Your task to perform on an android device: Open sound settings Image 0: 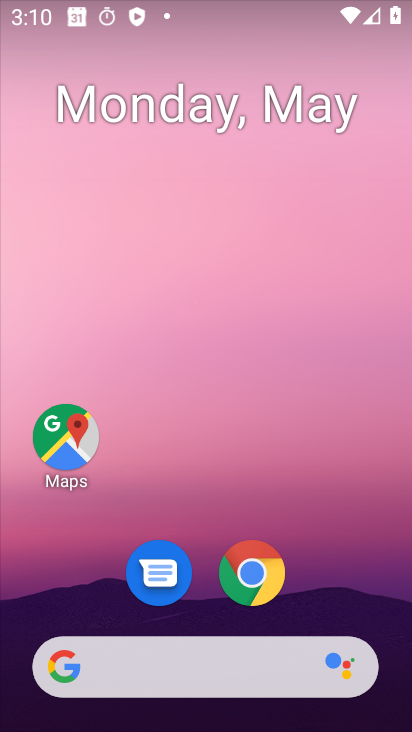
Step 0: drag from (246, 598) to (118, 22)
Your task to perform on an android device: Open sound settings Image 1: 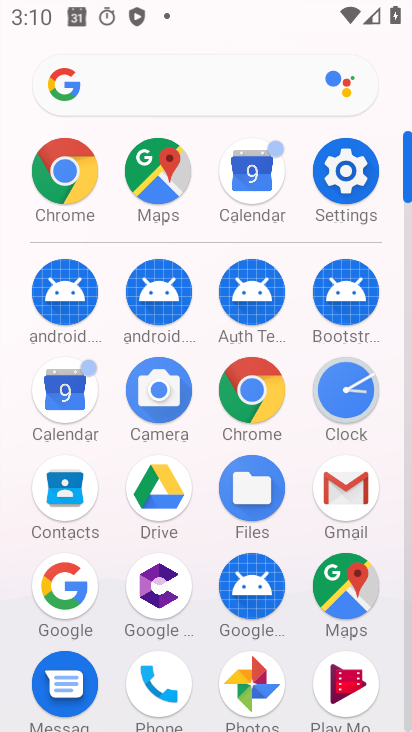
Step 1: click (356, 167)
Your task to perform on an android device: Open sound settings Image 2: 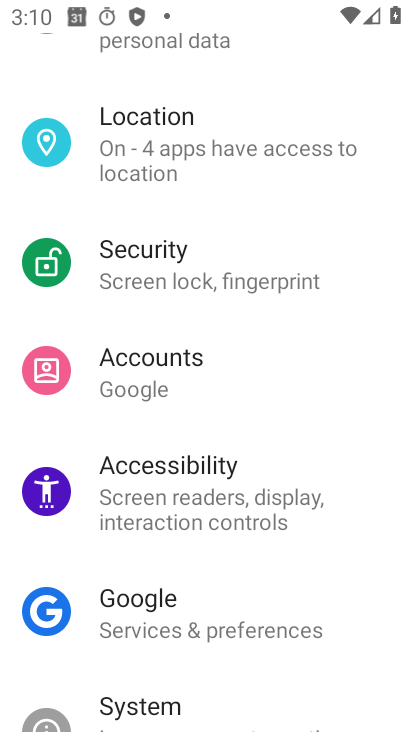
Step 2: drag from (152, 576) to (77, 20)
Your task to perform on an android device: Open sound settings Image 3: 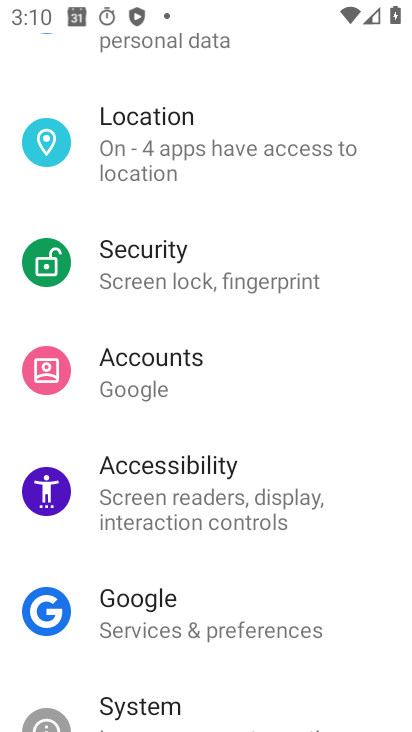
Step 3: drag from (158, 208) to (189, 731)
Your task to perform on an android device: Open sound settings Image 4: 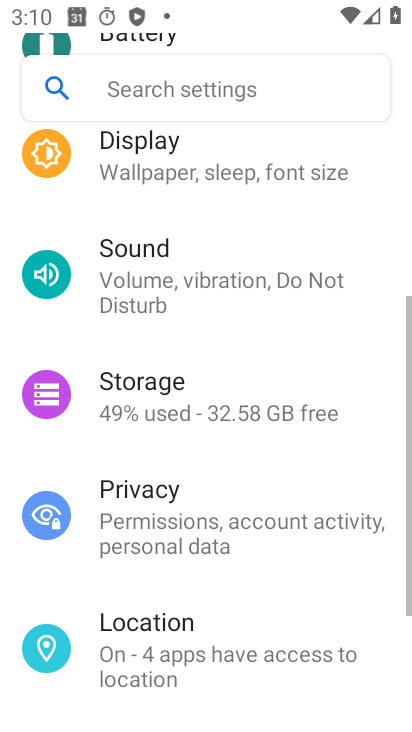
Step 4: drag from (216, 297) to (237, 524)
Your task to perform on an android device: Open sound settings Image 5: 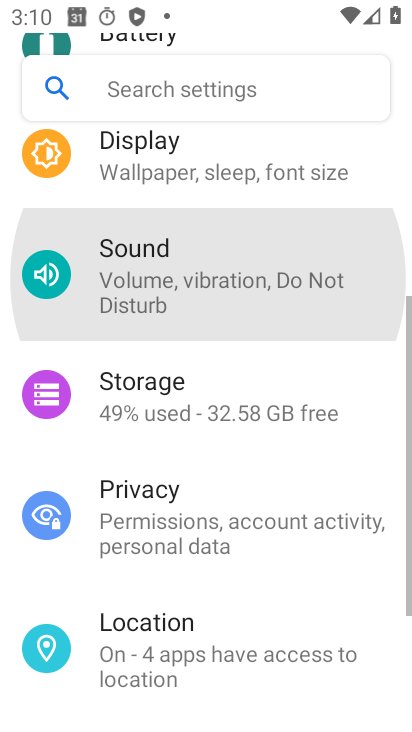
Step 5: drag from (258, 280) to (323, 559)
Your task to perform on an android device: Open sound settings Image 6: 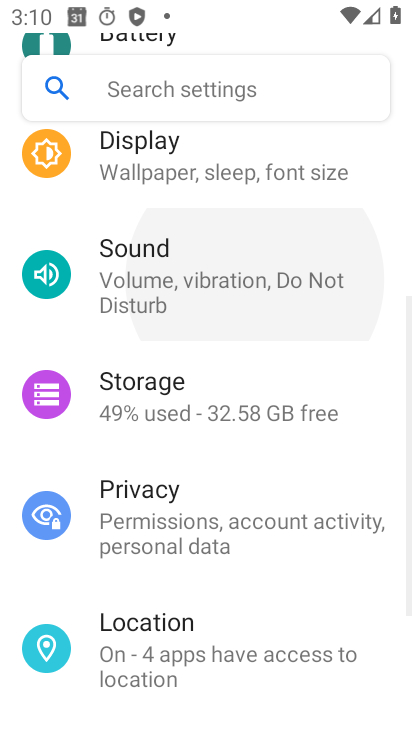
Step 6: drag from (254, 216) to (227, 473)
Your task to perform on an android device: Open sound settings Image 7: 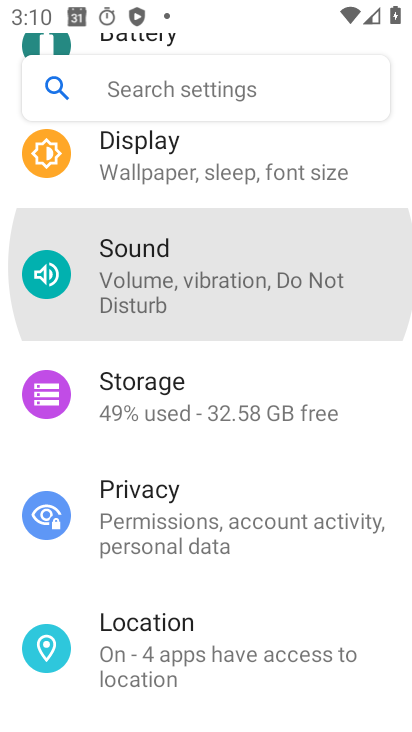
Step 7: drag from (141, 248) to (180, 518)
Your task to perform on an android device: Open sound settings Image 8: 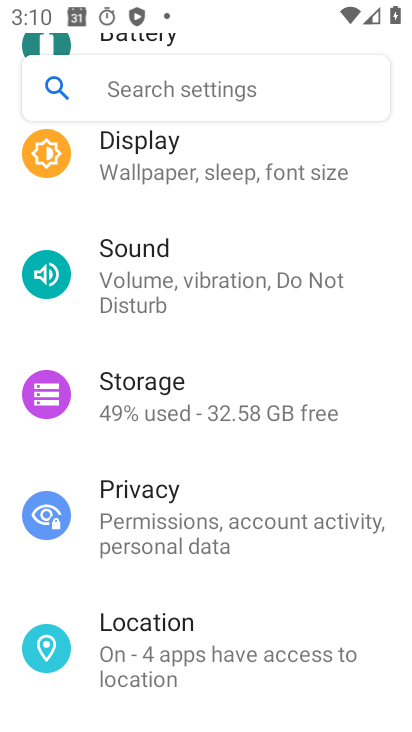
Step 8: click (154, 286)
Your task to perform on an android device: Open sound settings Image 9: 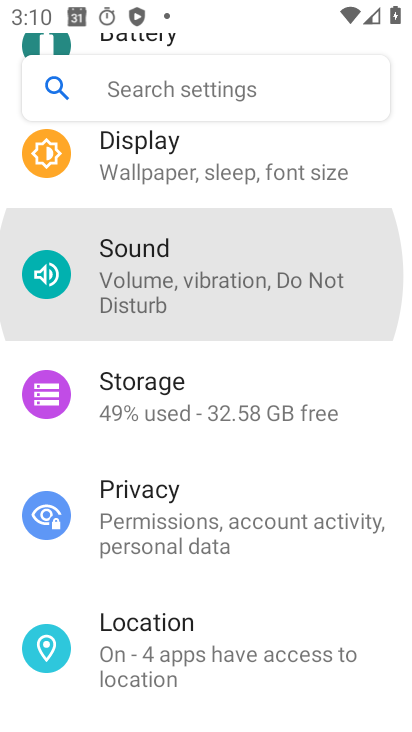
Step 9: click (154, 286)
Your task to perform on an android device: Open sound settings Image 10: 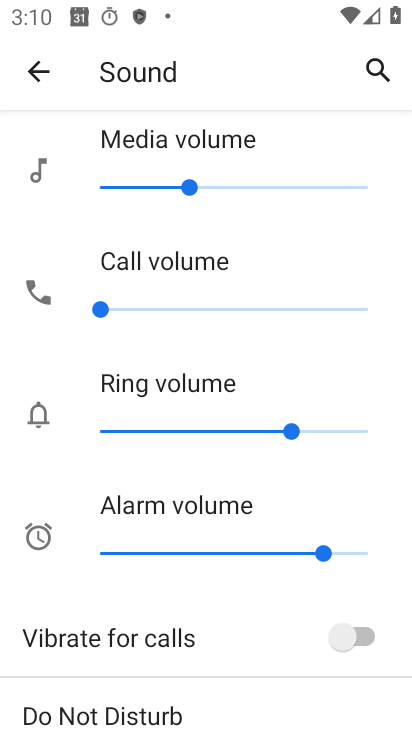
Step 10: task complete